Your task to perform on an android device: Open settings Image 0: 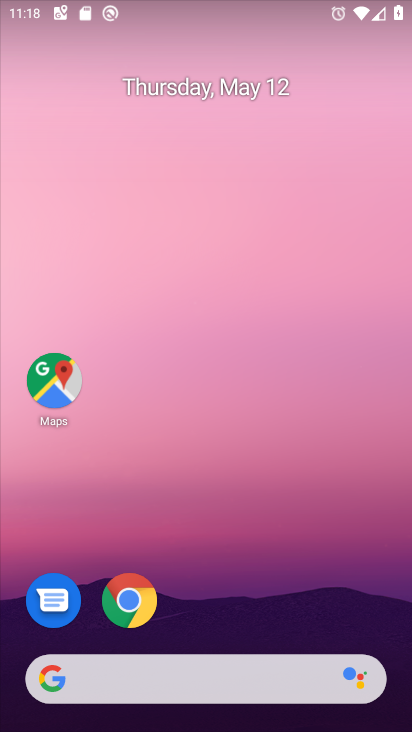
Step 0: drag from (210, 623) to (161, 227)
Your task to perform on an android device: Open settings Image 1: 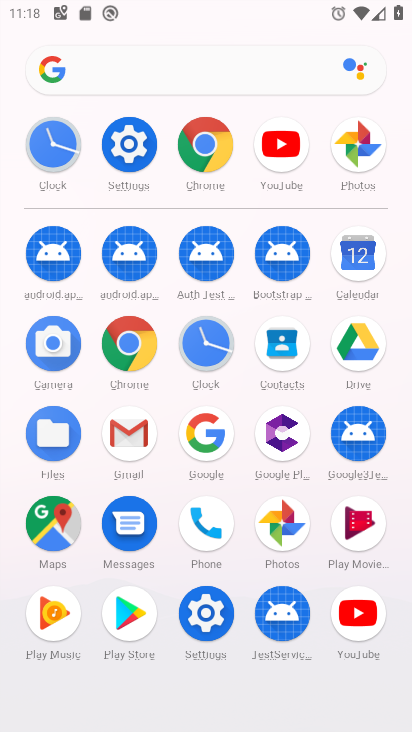
Step 1: click (202, 607)
Your task to perform on an android device: Open settings Image 2: 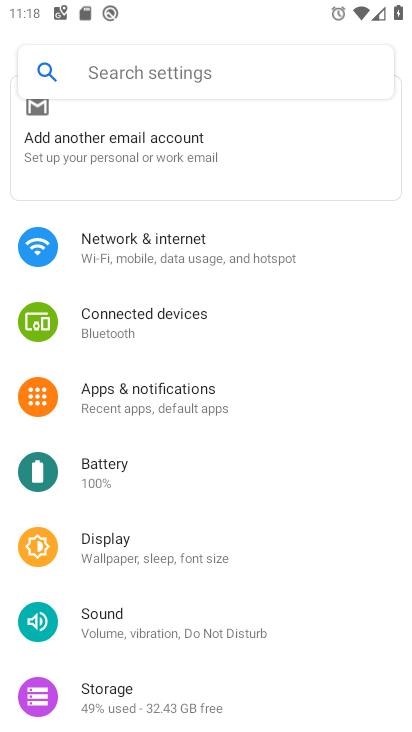
Step 2: task complete